Your task to perform on an android device: open app "Firefox Browser" (install if not already installed) and go to login screen Image 0: 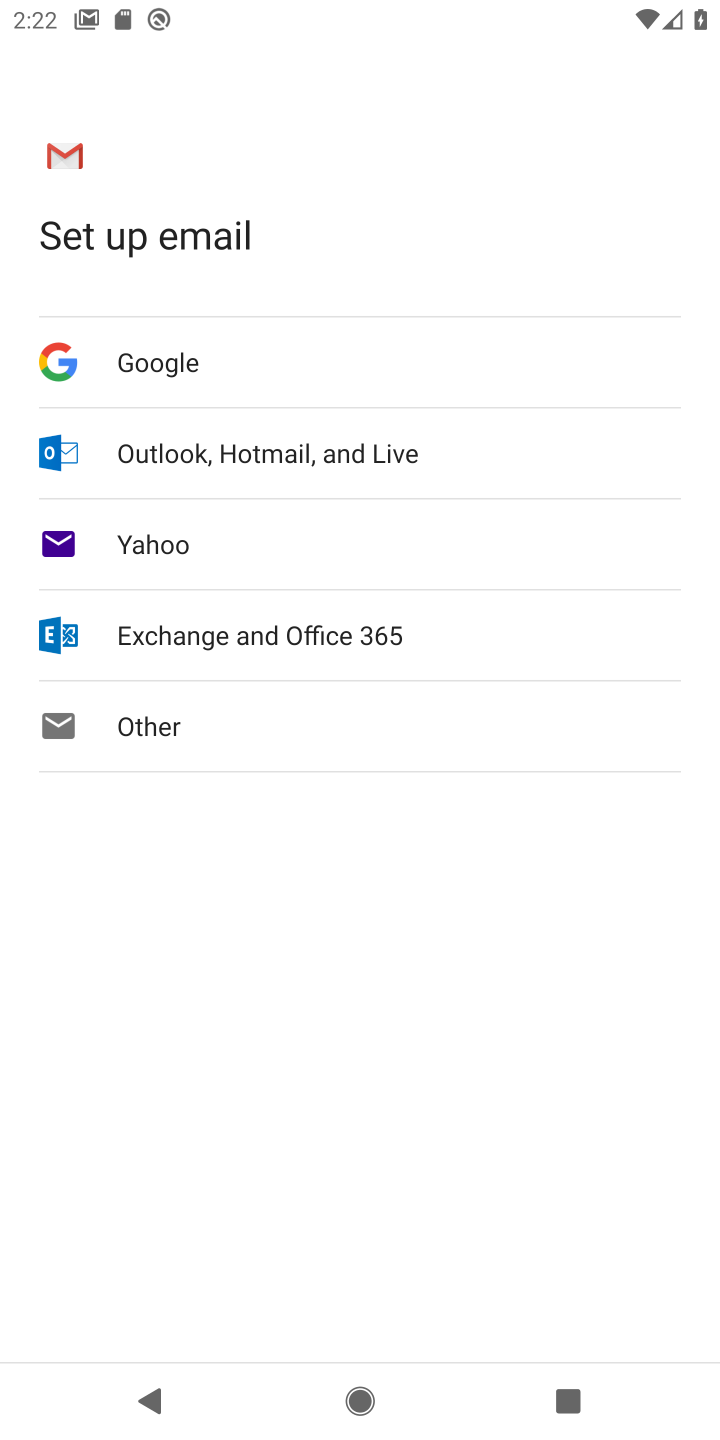
Step 0: press home button
Your task to perform on an android device: open app "Firefox Browser" (install if not already installed) and go to login screen Image 1: 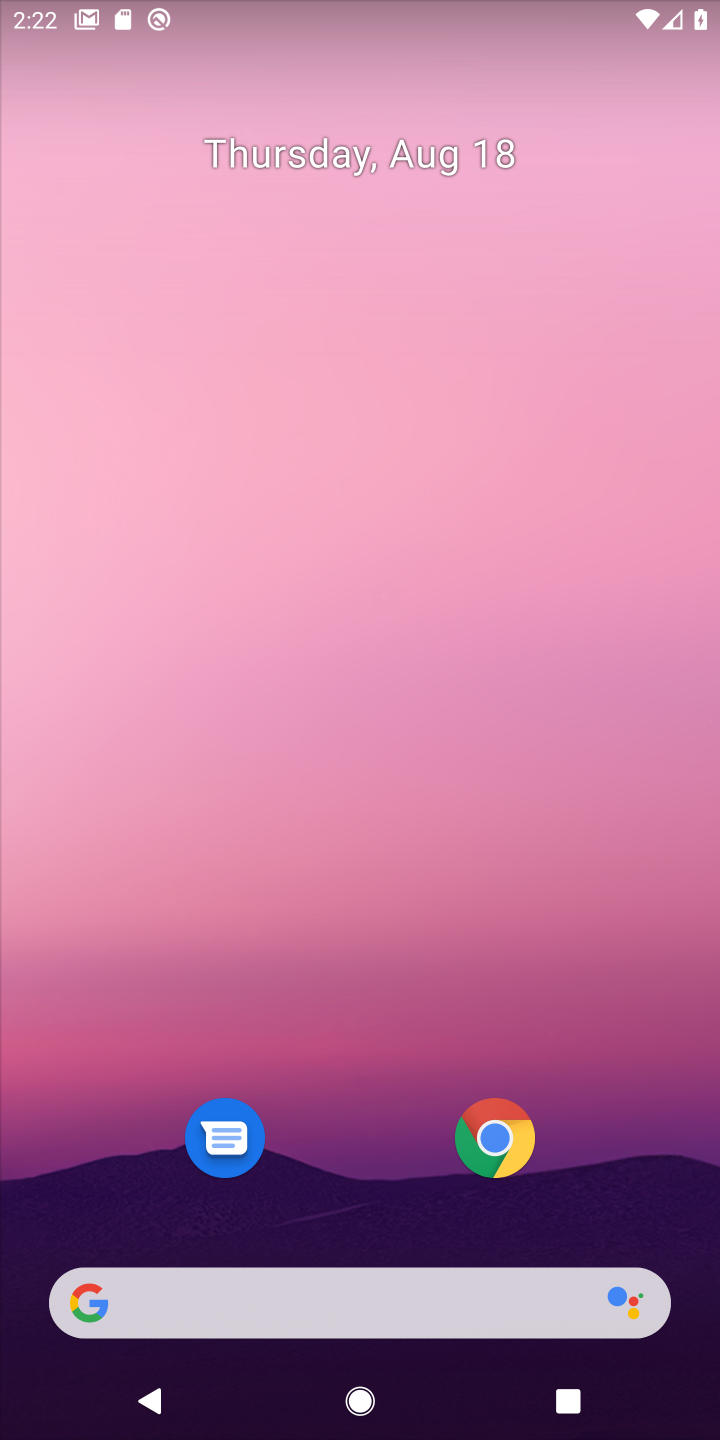
Step 1: drag from (302, 1263) to (522, 421)
Your task to perform on an android device: open app "Firefox Browser" (install if not already installed) and go to login screen Image 2: 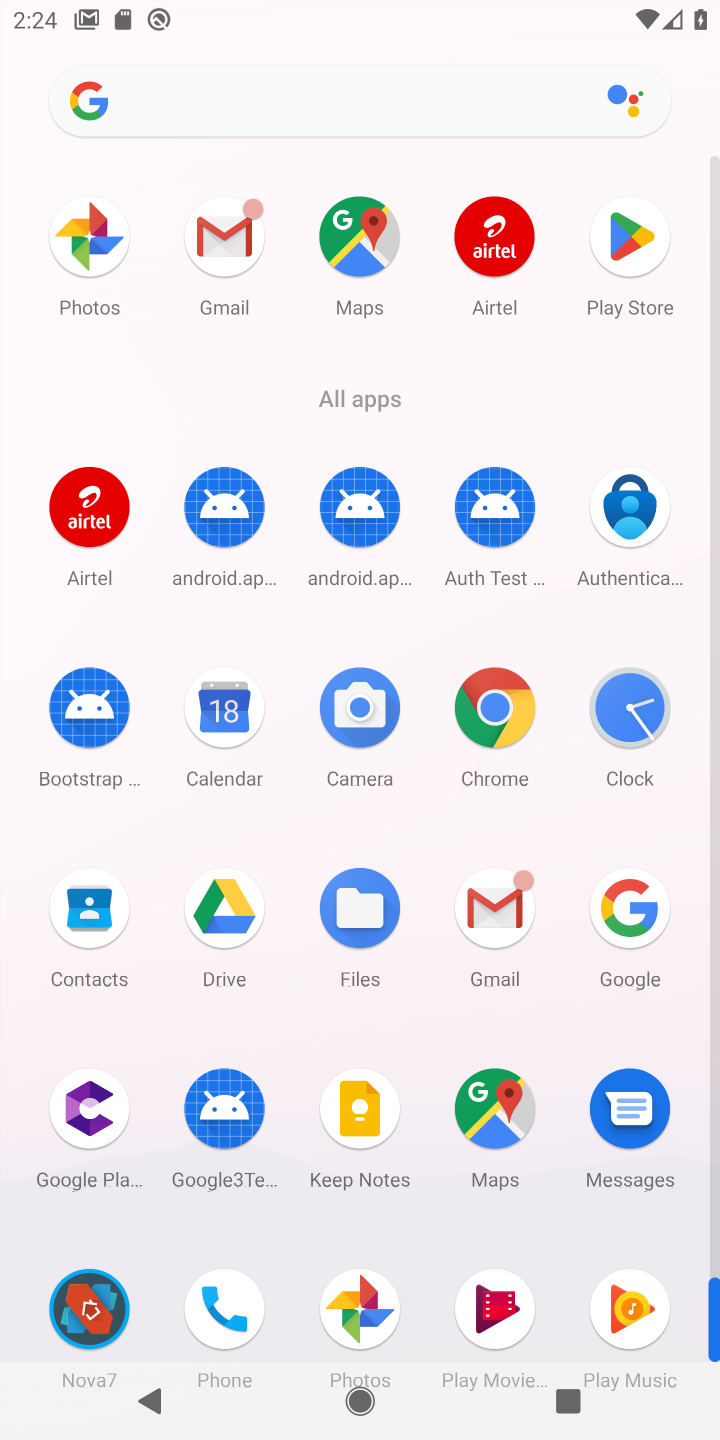
Step 2: click (645, 279)
Your task to perform on an android device: open app "Firefox Browser" (install if not already installed) and go to login screen Image 3: 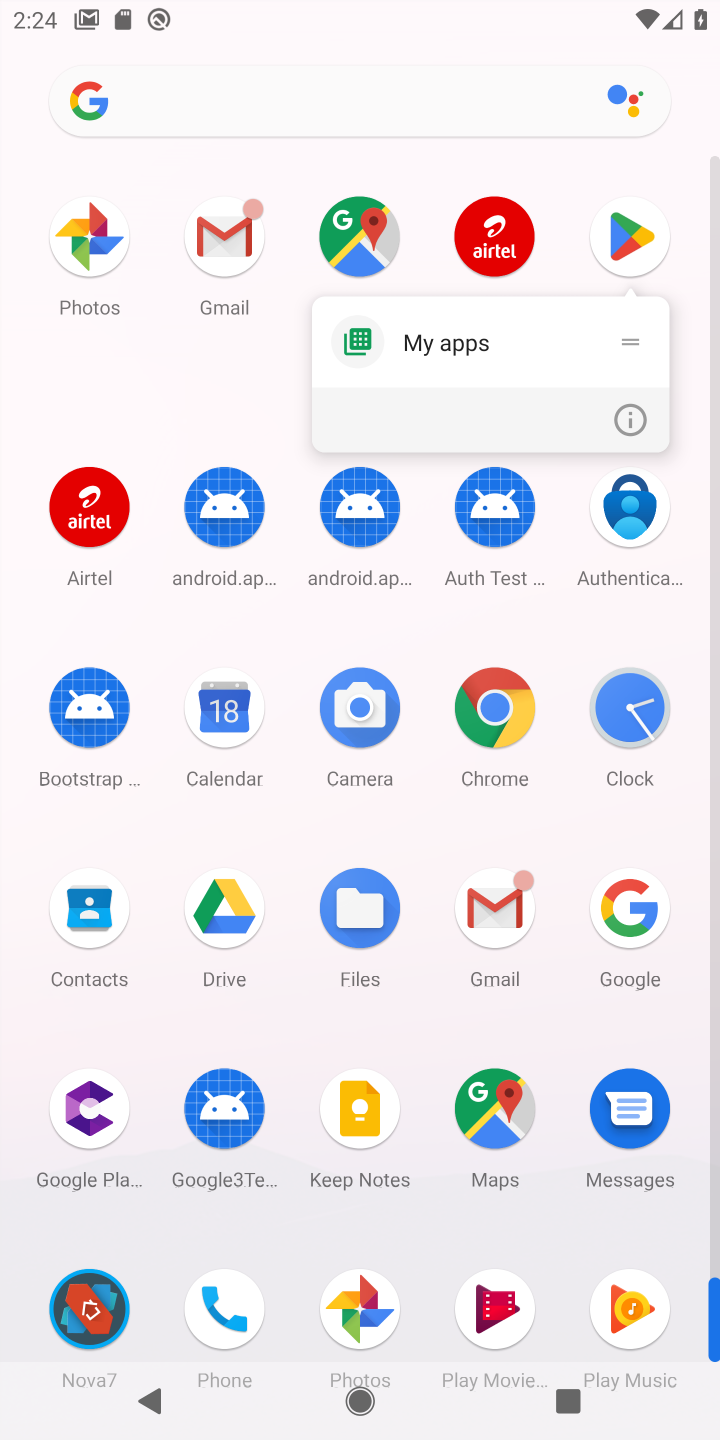
Step 3: click (621, 253)
Your task to perform on an android device: open app "Firefox Browser" (install if not already installed) and go to login screen Image 4: 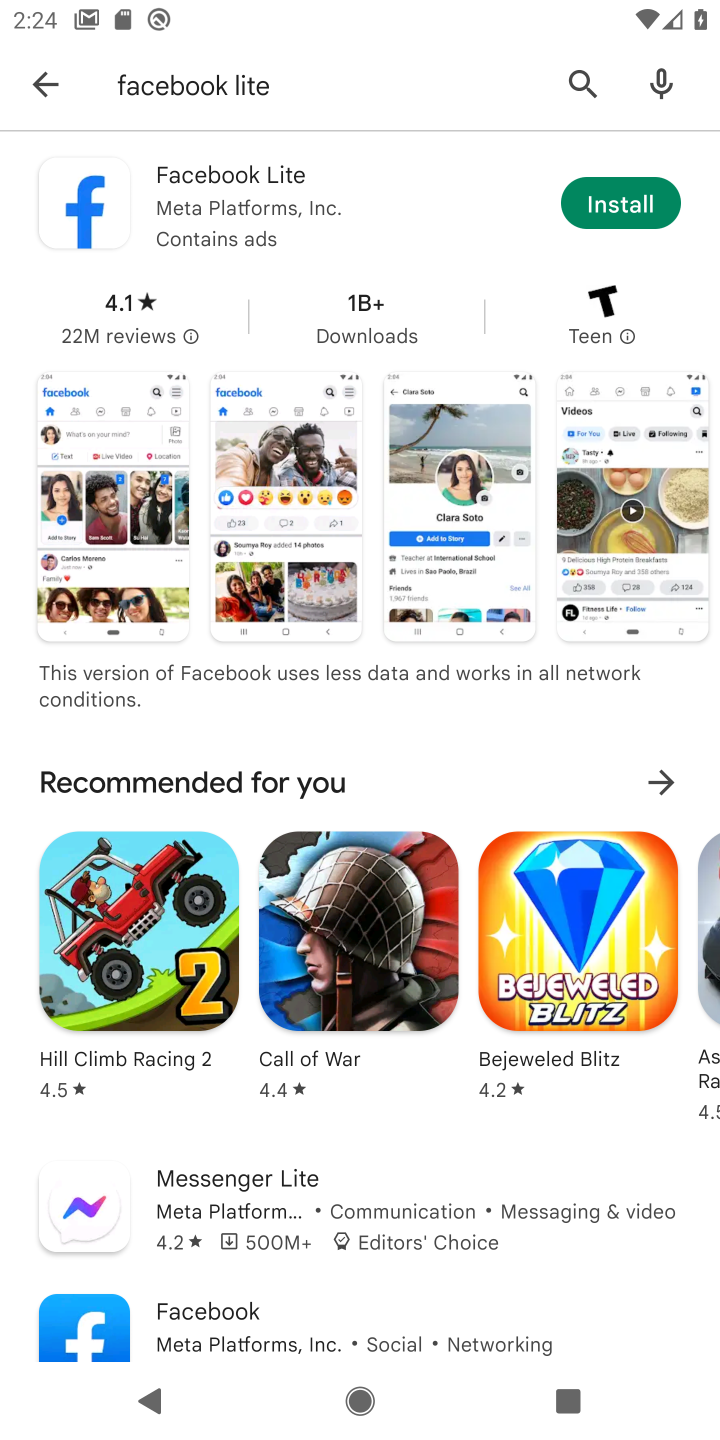
Step 4: click (47, 92)
Your task to perform on an android device: open app "Firefox Browser" (install if not already installed) and go to login screen Image 5: 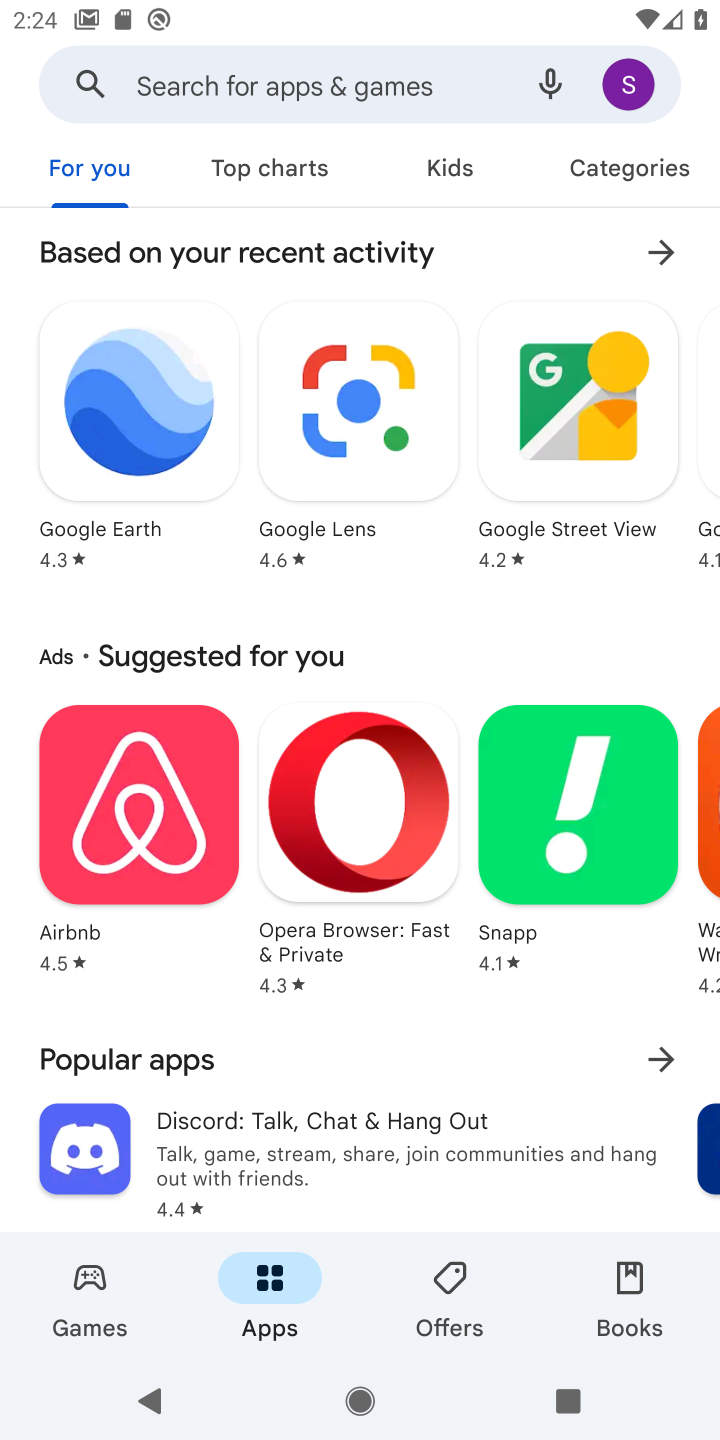
Step 5: click (215, 86)
Your task to perform on an android device: open app "Firefox Browser" (install if not already installed) and go to login screen Image 6: 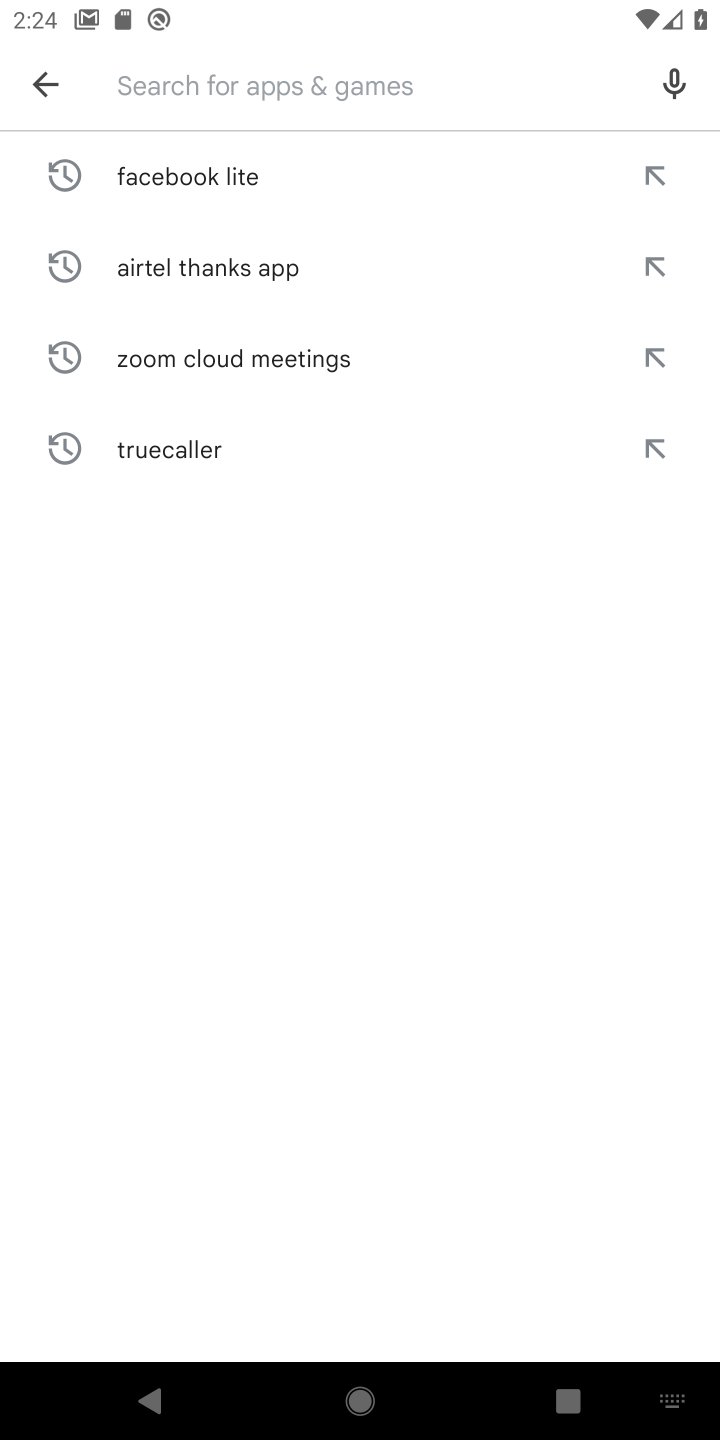
Step 6: type "Firefox Browser"
Your task to perform on an android device: open app "Firefox Browser" (install if not already installed) and go to login screen Image 7: 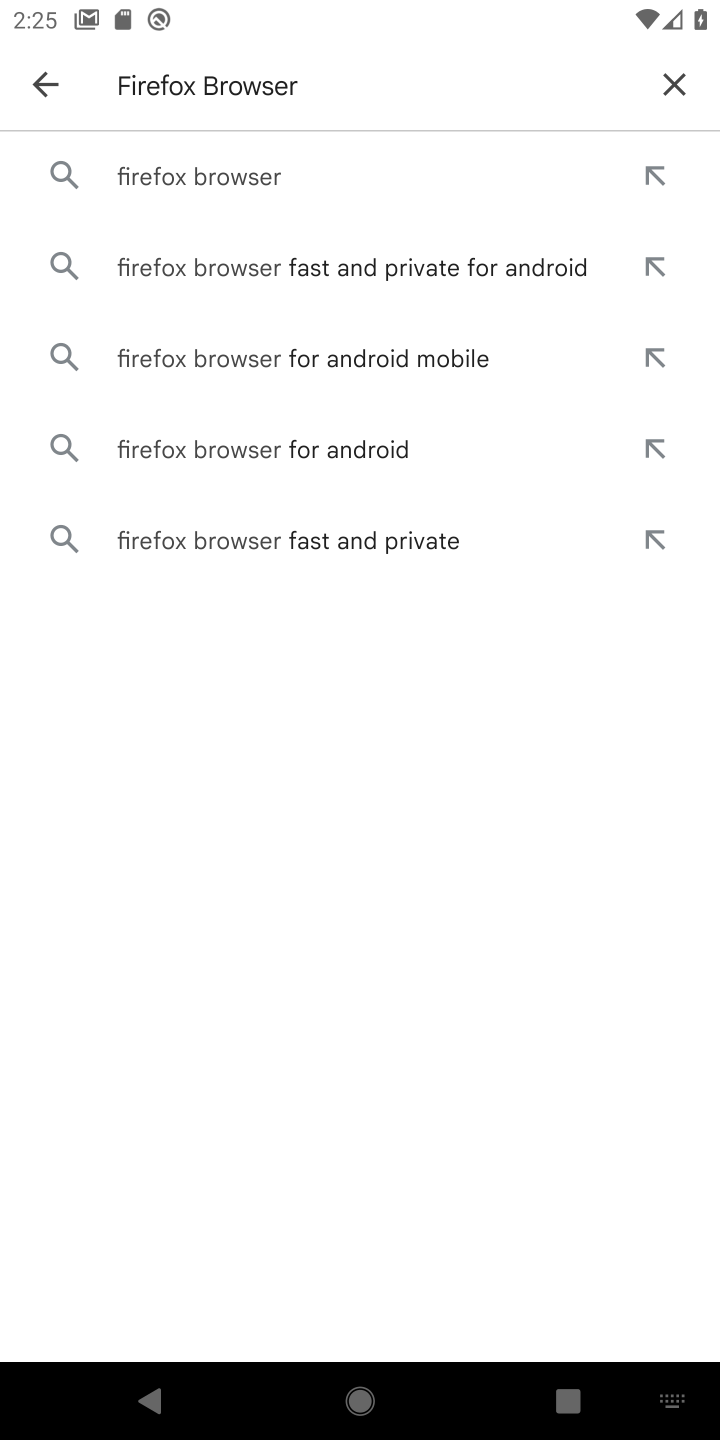
Step 7: click (165, 194)
Your task to perform on an android device: open app "Firefox Browser" (install if not already installed) and go to login screen Image 8: 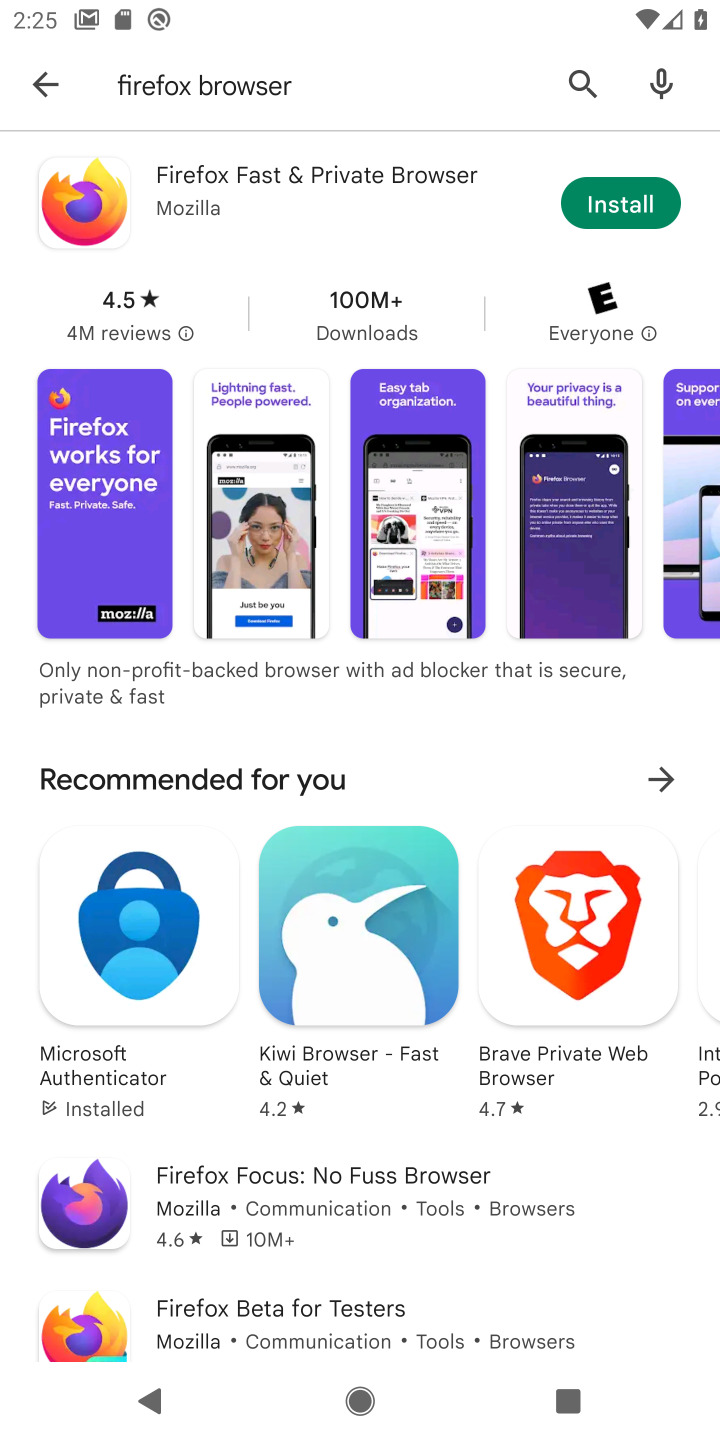
Step 8: click (657, 195)
Your task to perform on an android device: open app "Firefox Browser" (install if not already installed) and go to login screen Image 9: 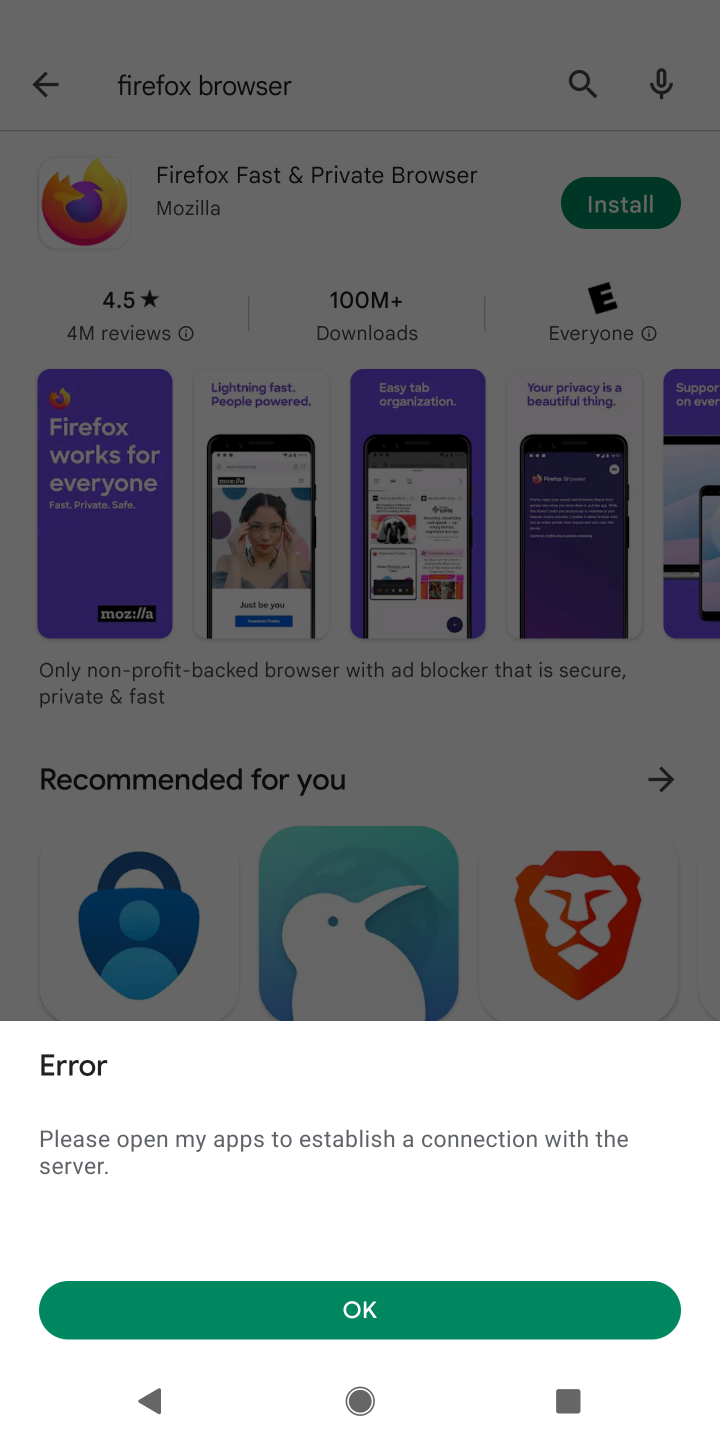
Step 9: click (393, 1283)
Your task to perform on an android device: open app "Firefox Browser" (install if not already installed) and go to login screen Image 10: 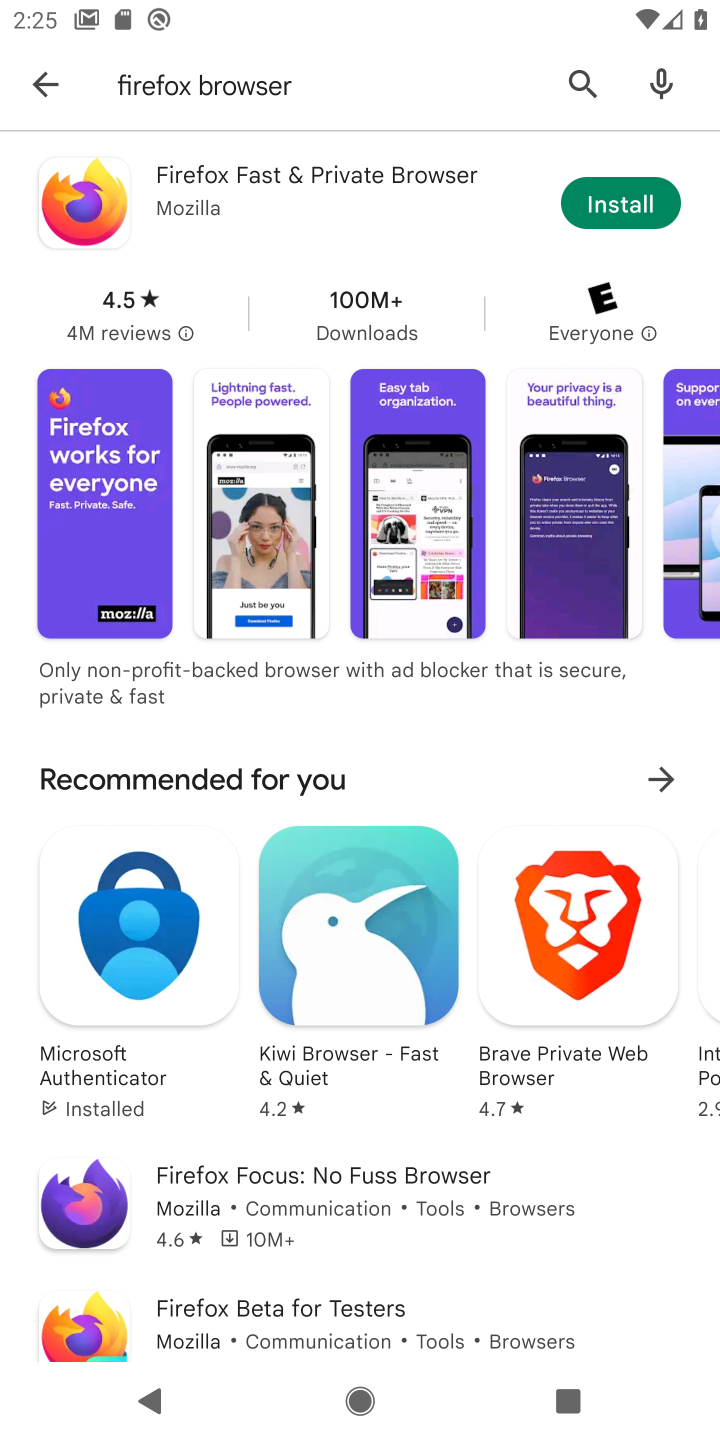
Step 10: click (642, 226)
Your task to perform on an android device: open app "Firefox Browser" (install if not already installed) and go to login screen Image 11: 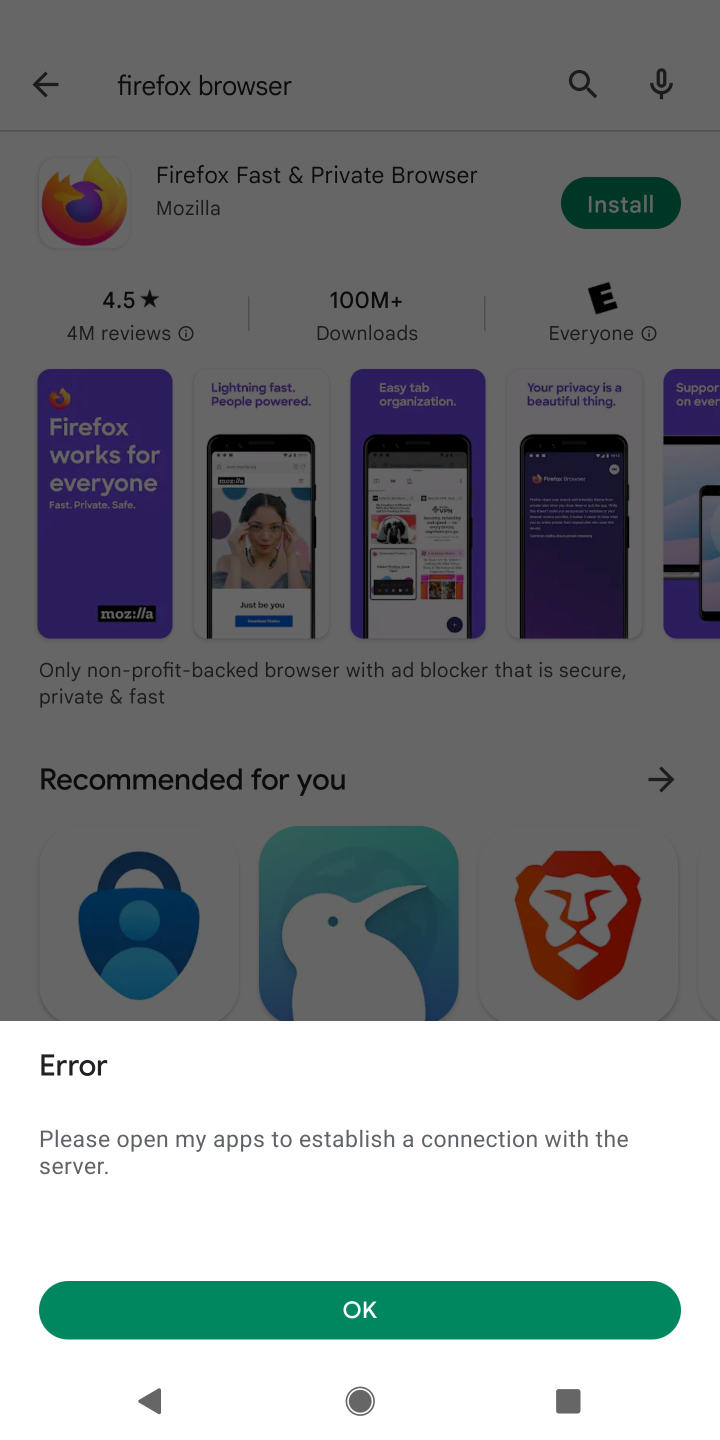
Step 11: task complete